Your task to perform on an android device: See recent photos Image 0: 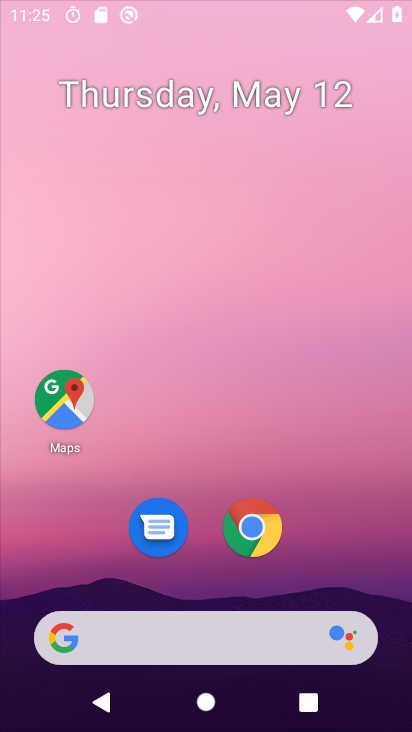
Step 0: click (263, 525)
Your task to perform on an android device: See recent photos Image 1: 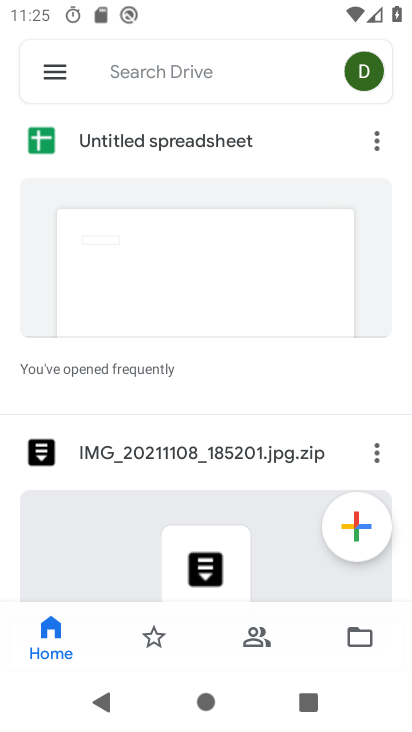
Step 1: press home button
Your task to perform on an android device: See recent photos Image 2: 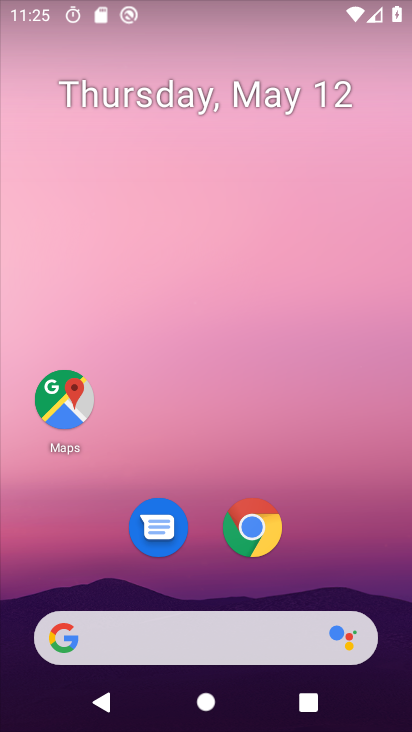
Step 2: click (273, 232)
Your task to perform on an android device: See recent photos Image 3: 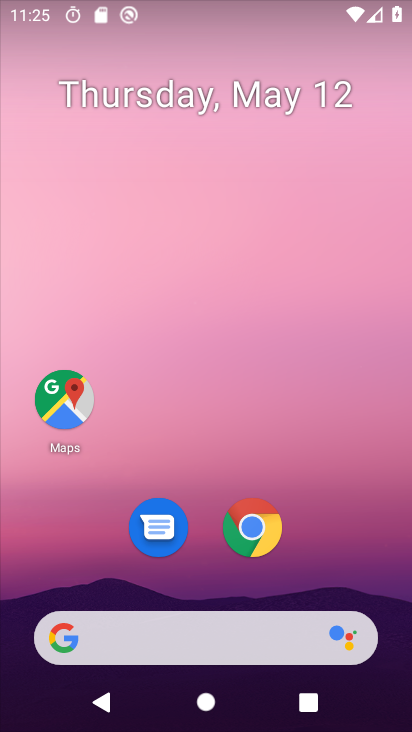
Step 3: drag from (302, 568) to (277, 122)
Your task to perform on an android device: See recent photos Image 4: 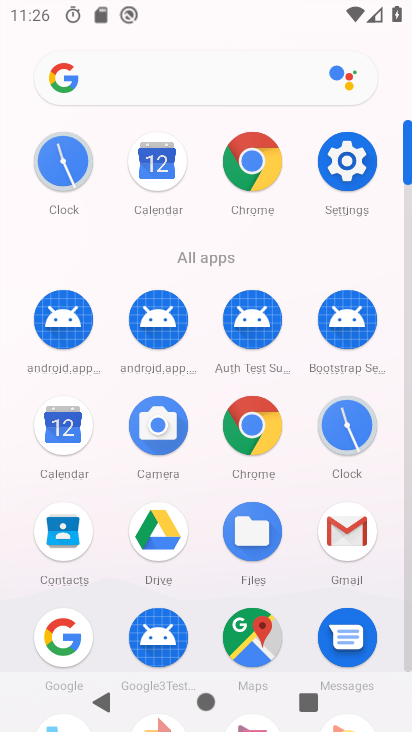
Step 4: drag from (215, 609) to (171, 308)
Your task to perform on an android device: See recent photos Image 5: 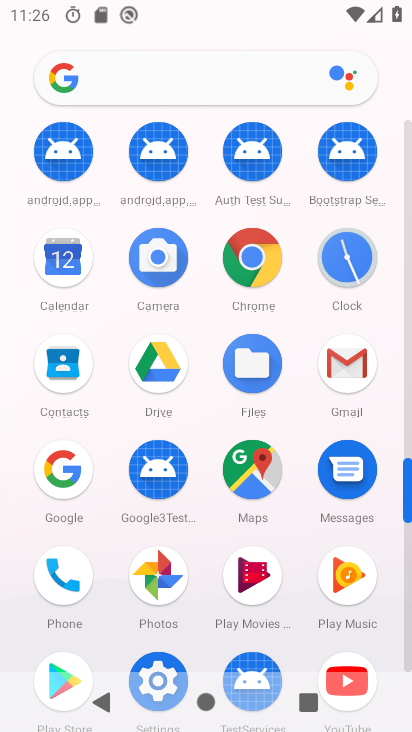
Step 5: click (161, 582)
Your task to perform on an android device: See recent photos Image 6: 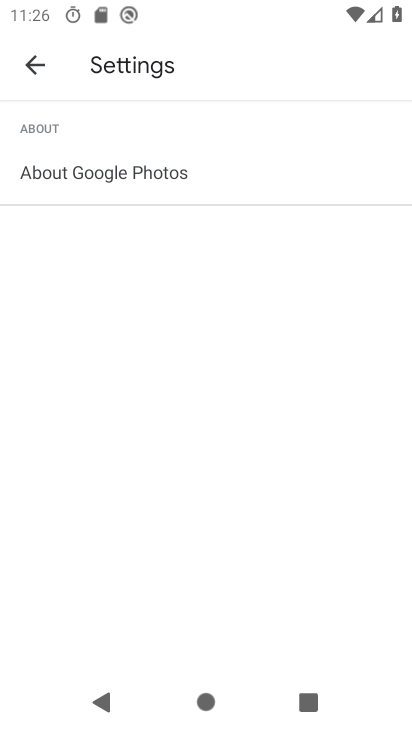
Step 6: click (34, 75)
Your task to perform on an android device: See recent photos Image 7: 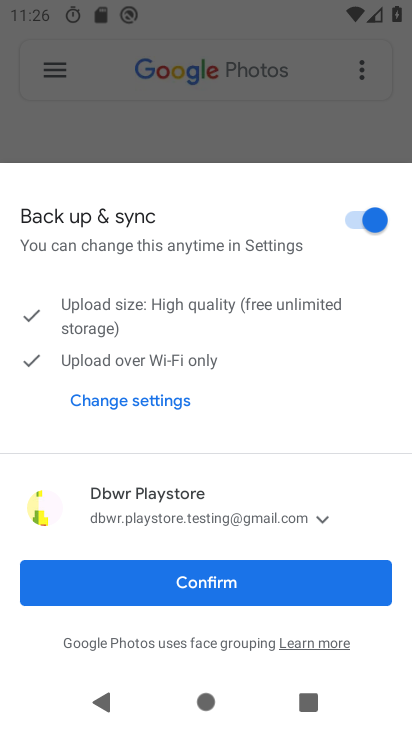
Step 7: click (217, 594)
Your task to perform on an android device: See recent photos Image 8: 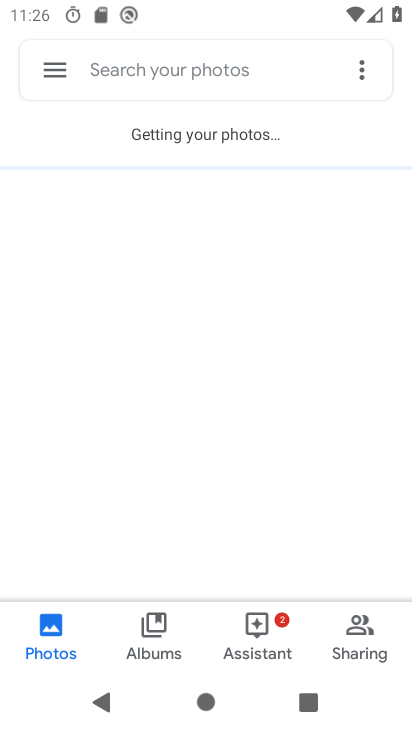
Step 8: task complete